Your task to perform on an android device: refresh tabs in the chrome app Image 0: 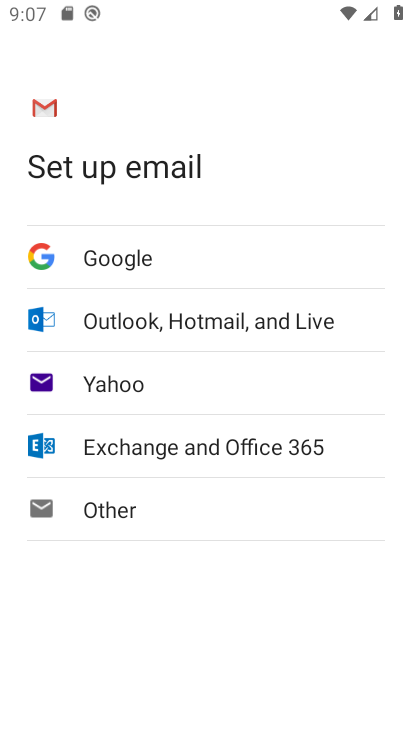
Step 0: press home button
Your task to perform on an android device: refresh tabs in the chrome app Image 1: 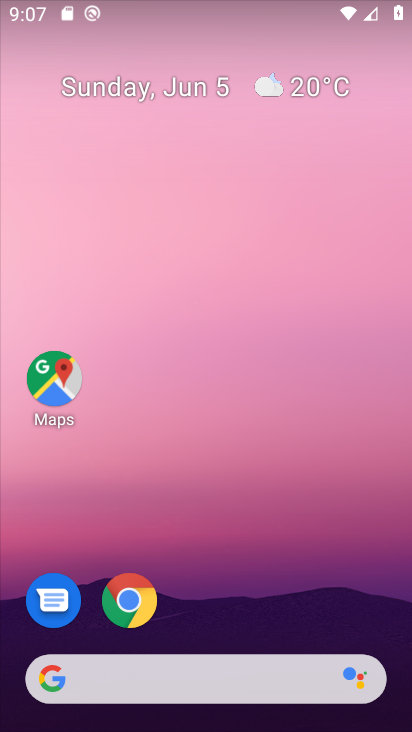
Step 1: click (140, 593)
Your task to perform on an android device: refresh tabs in the chrome app Image 2: 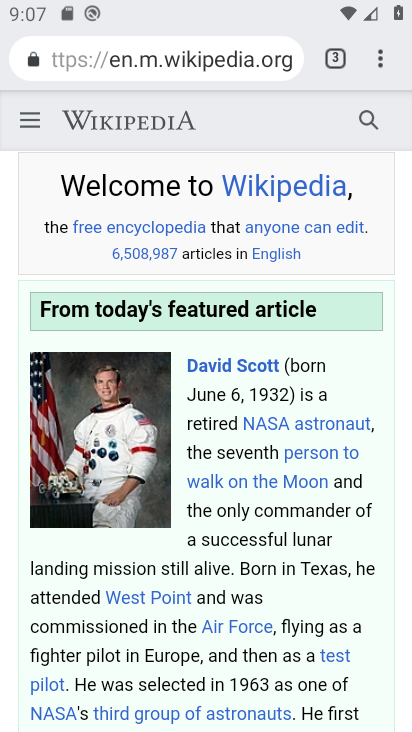
Step 2: click (382, 53)
Your task to perform on an android device: refresh tabs in the chrome app Image 3: 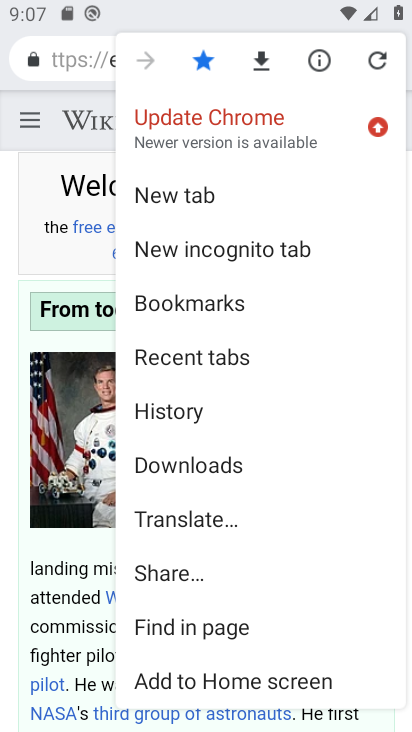
Step 3: click (382, 53)
Your task to perform on an android device: refresh tabs in the chrome app Image 4: 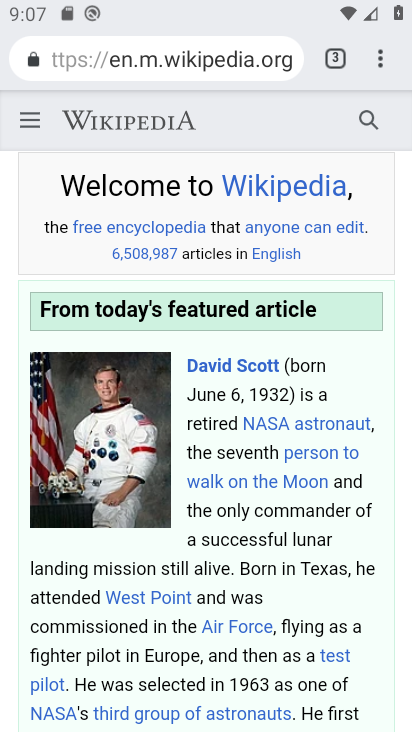
Step 4: task complete